Your task to perform on an android device: Open eBay Image 0: 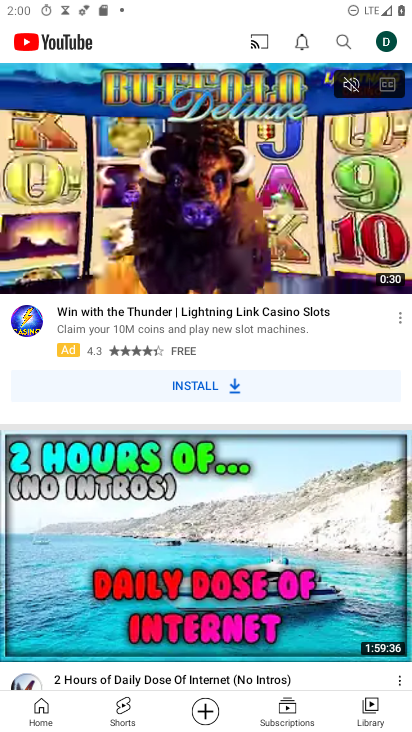
Step 0: press home button
Your task to perform on an android device: Open eBay Image 1: 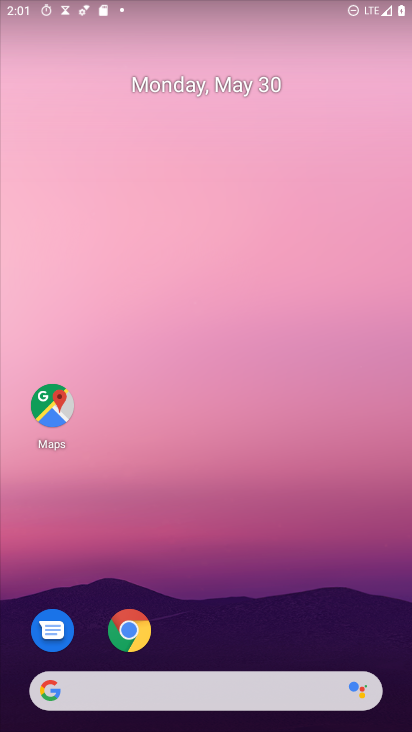
Step 1: drag from (316, 674) to (242, 309)
Your task to perform on an android device: Open eBay Image 2: 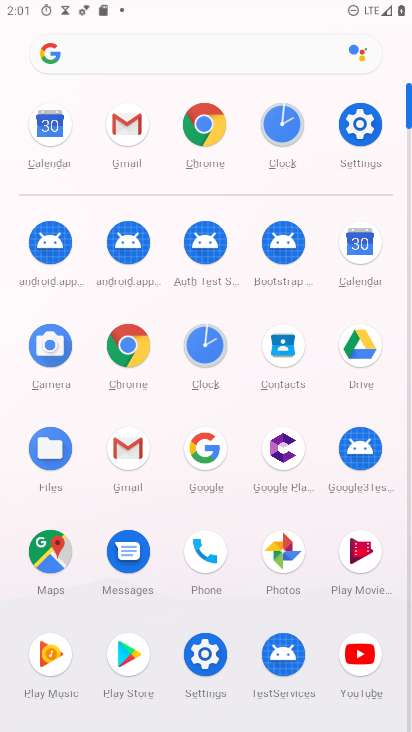
Step 2: click (198, 150)
Your task to perform on an android device: Open eBay Image 3: 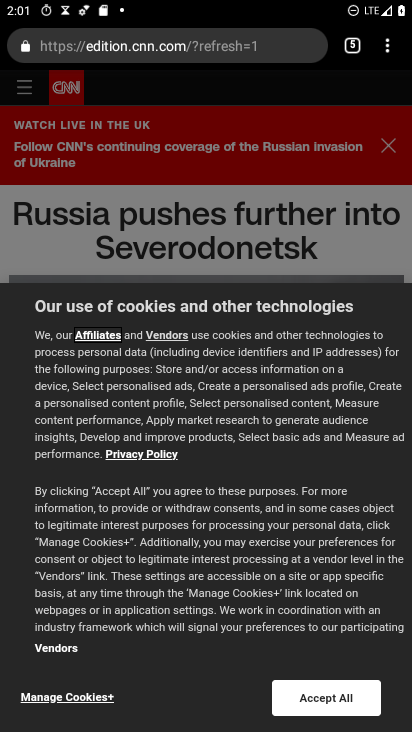
Step 3: click (220, 38)
Your task to perform on an android device: Open eBay Image 4: 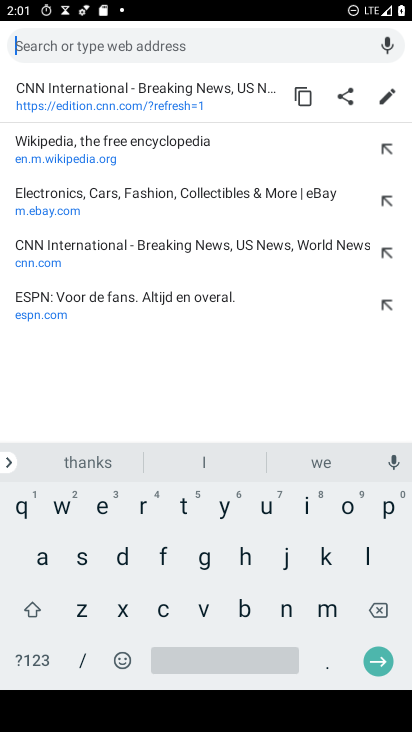
Step 4: click (104, 504)
Your task to perform on an android device: Open eBay Image 5: 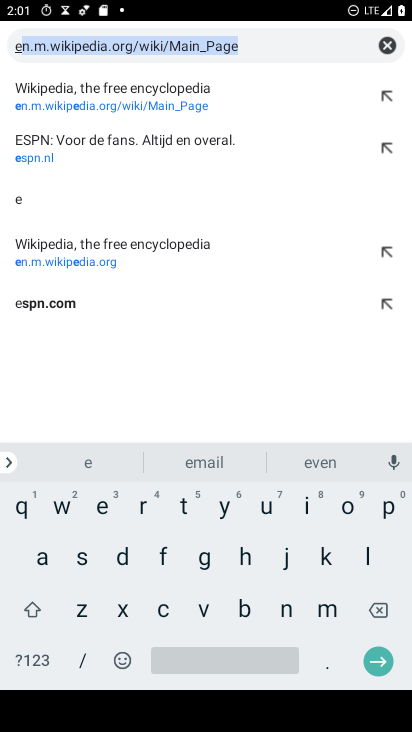
Step 5: click (248, 611)
Your task to perform on an android device: Open eBay Image 6: 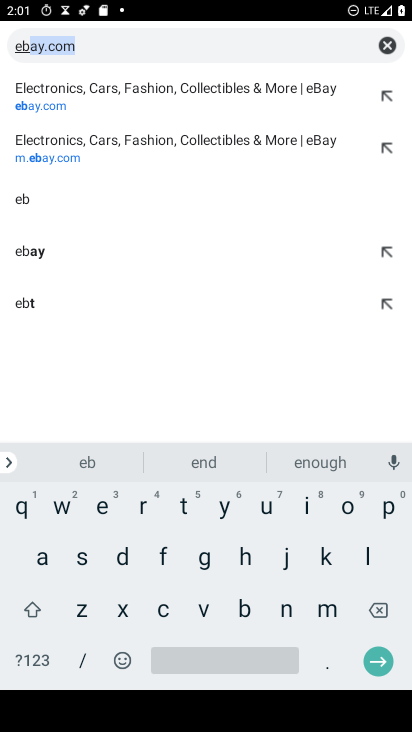
Step 6: click (115, 52)
Your task to perform on an android device: Open eBay Image 7: 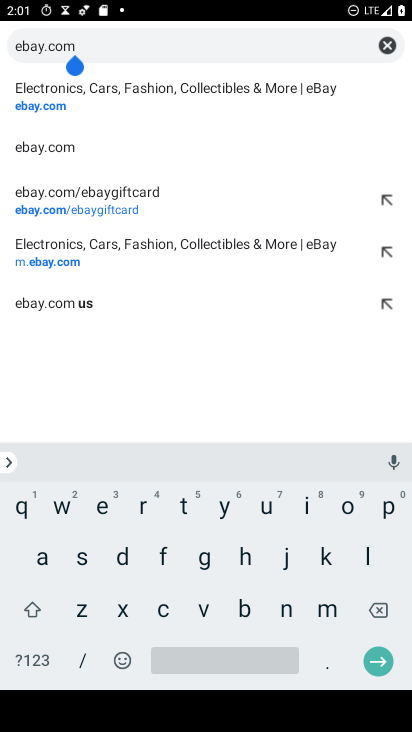
Step 7: click (381, 662)
Your task to perform on an android device: Open eBay Image 8: 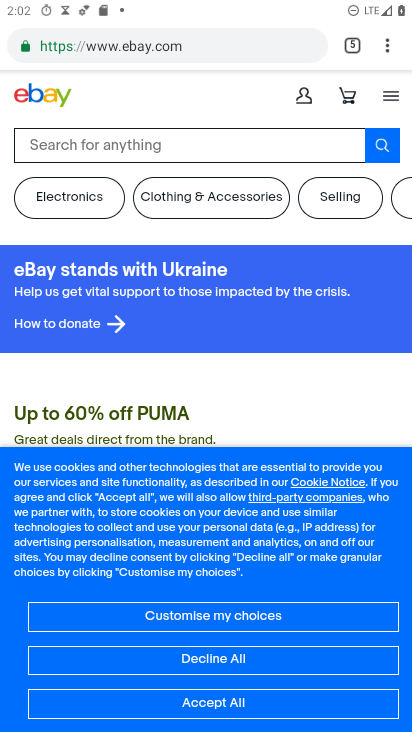
Step 8: task complete